Your task to perform on an android device: open wifi settings Image 0: 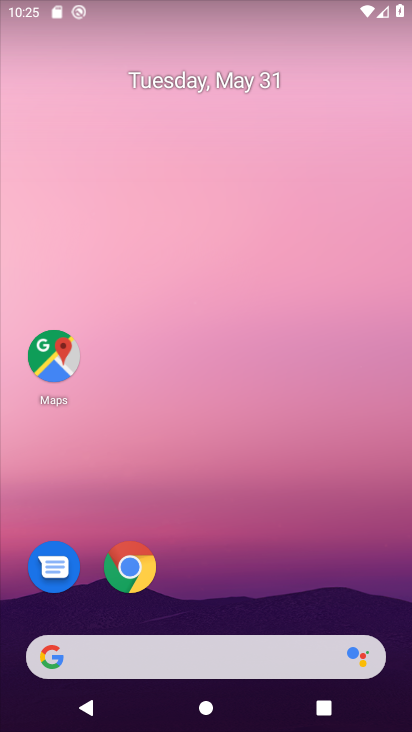
Step 0: drag from (180, 7) to (207, 595)
Your task to perform on an android device: open wifi settings Image 1: 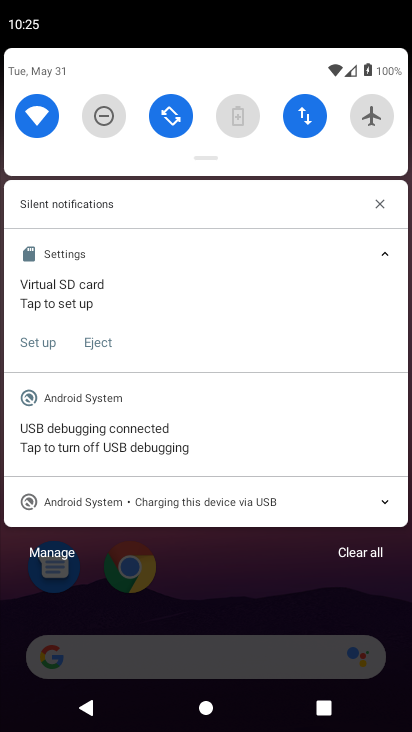
Step 1: click (30, 124)
Your task to perform on an android device: open wifi settings Image 2: 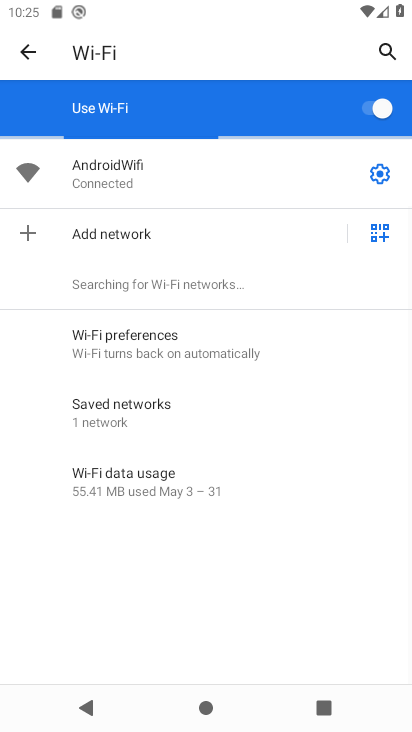
Step 2: task complete